Your task to perform on an android device: Go to ESPN.com Image 0: 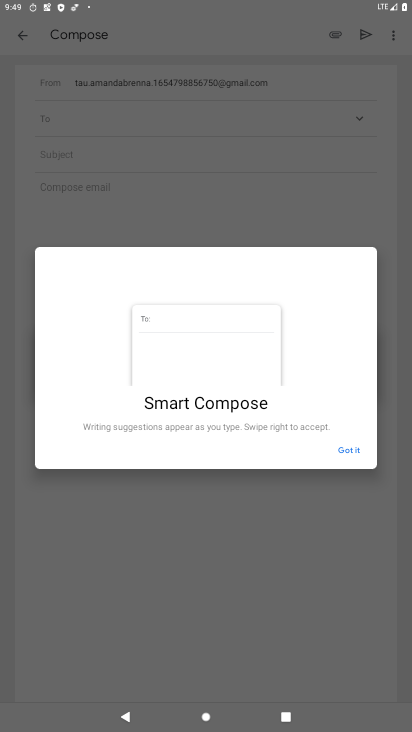
Step 0: press home button
Your task to perform on an android device: Go to ESPN.com Image 1: 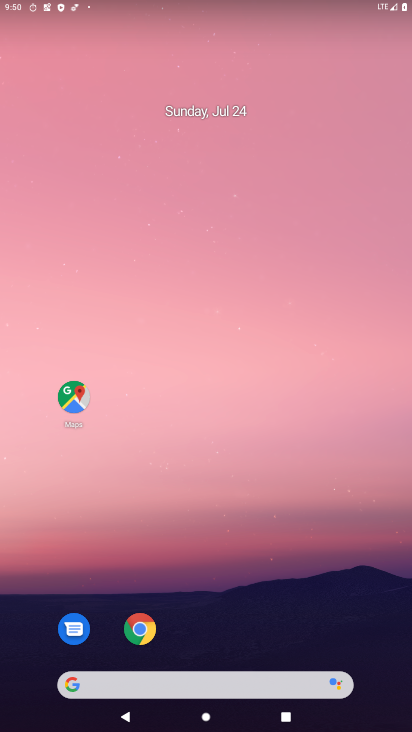
Step 1: click (73, 689)
Your task to perform on an android device: Go to ESPN.com Image 2: 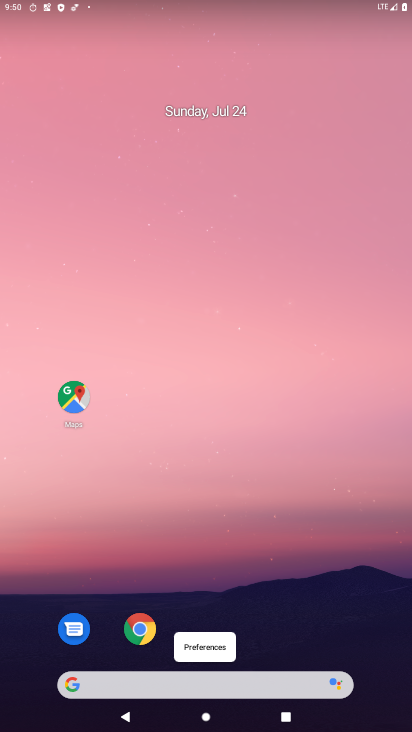
Step 2: click (73, 689)
Your task to perform on an android device: Go to ESPN.com Image 3: 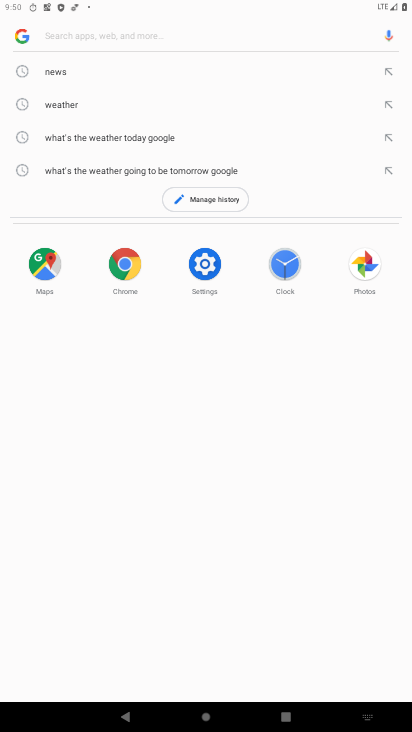
Step 3: type "ESPN.com"
Your task to perform on an android device: Go to ESPN.com Image 4: 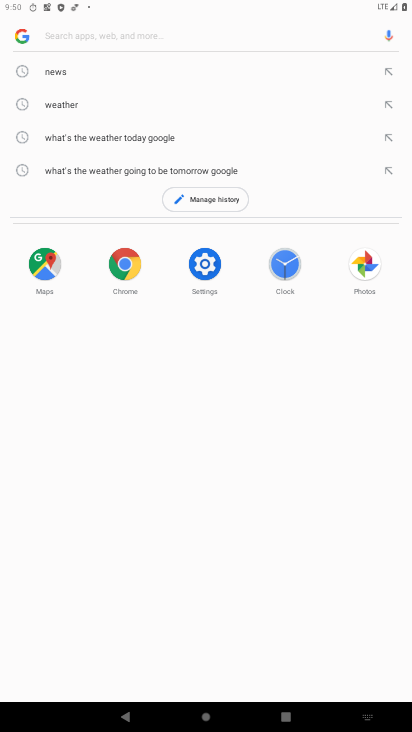
Step 4: click (82, 37)
Your task to perform on an android device: Go to ESPN.com Image 5: 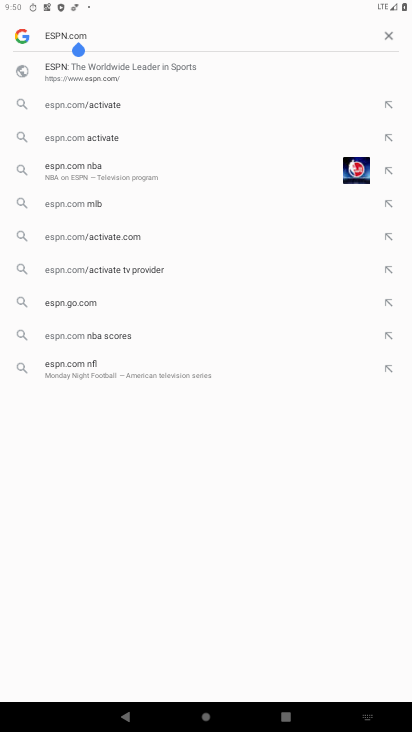
Step 5: click (105, 69)
Your task to perform on an android device: Go to ESPN.com Image 6: 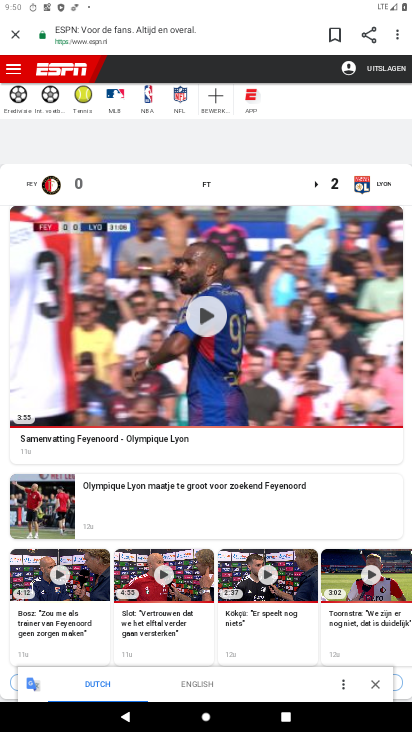
Step 6: task complete